Your task to perform on an android device: turn off smart reply in the gmail app Image 0: 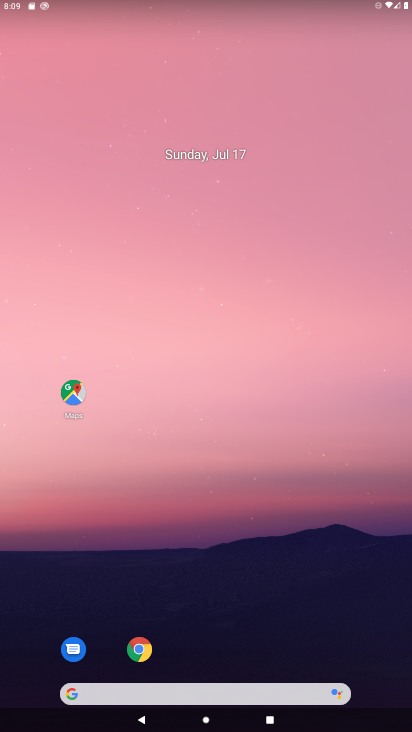
Step 0: drag from (231, 668) to (179, 11)
Your task to perform on an android device: turn off smart reply in the gmail app Image 1: 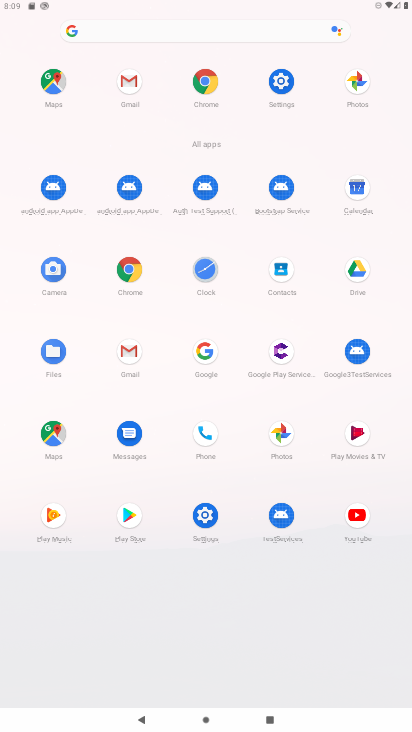
Step 1: click (201, 525)
Your task to perform on an android device: turn off smart reply in the gmail app Image 2: 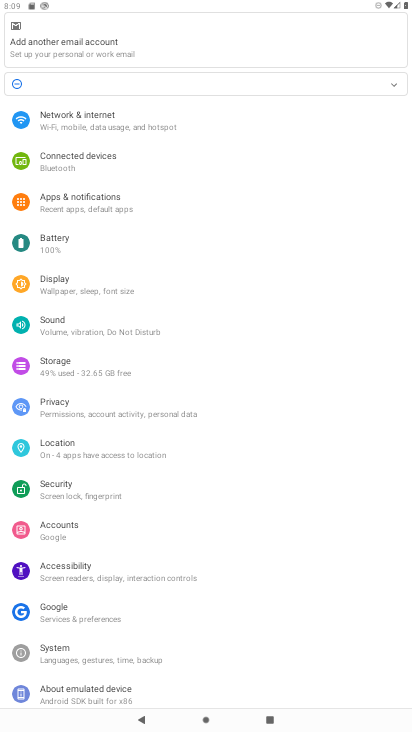
Step 2: press home button
Your task to perform on an android device: turn off smart reply in the gmail app Image 3: 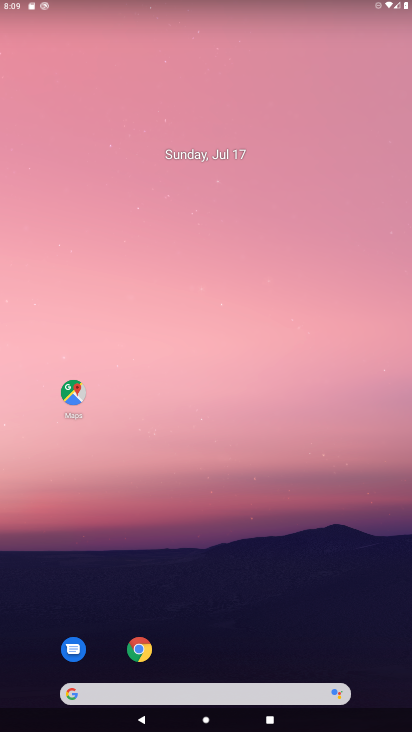
Step 3: drag from (225, 672) to (177, 45)
Your task to perform on an android device: turn off smart reply in the gmail app Image 4: 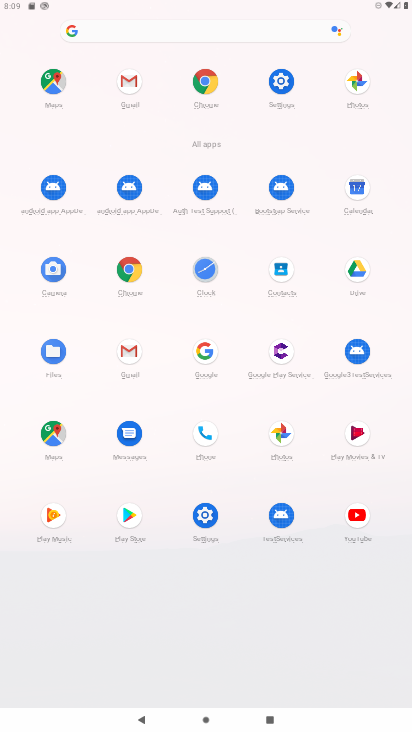
Step 4: click (119, 327)
Your task to perform on an android device: turn off smart reply in the gmail app Image 5: 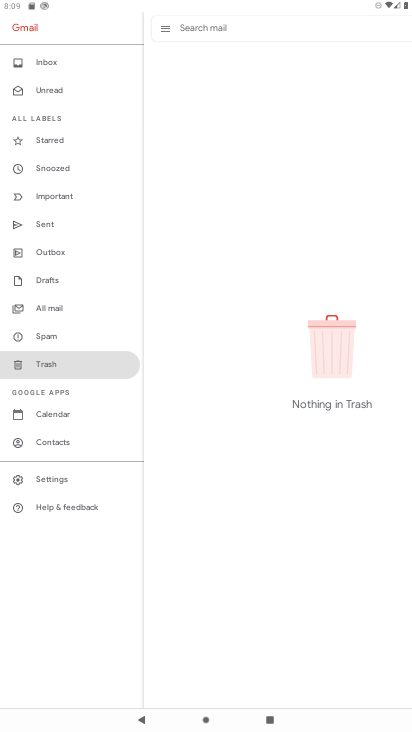
Step 5: click (48, 471)
Your task to perform on an android device: turn off smart reply in the gmail app Image 6: 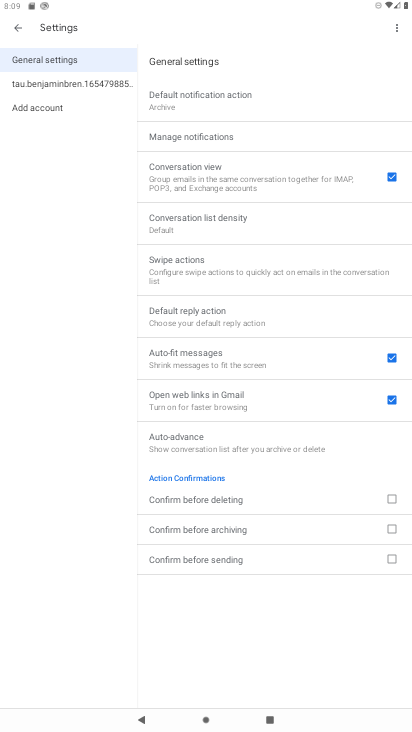
Step 6: click (80, 89)
Your task to perform on an android device: turn off smart reply in the gmail app Image 7: 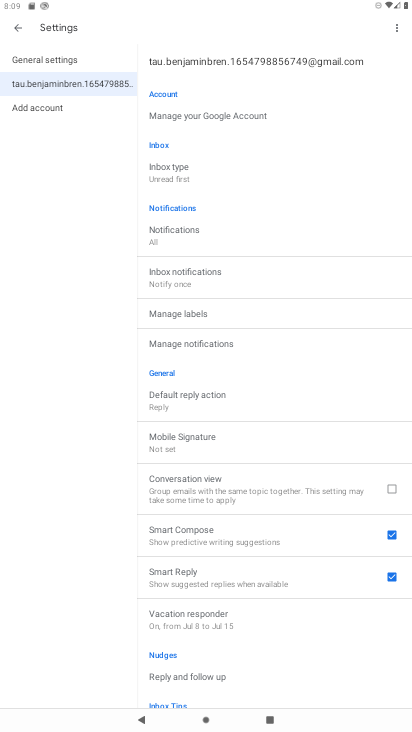
Step 7: click (397, 579)
Your task to perform on an android device: turn off smart reply in the gmail app Image 8: 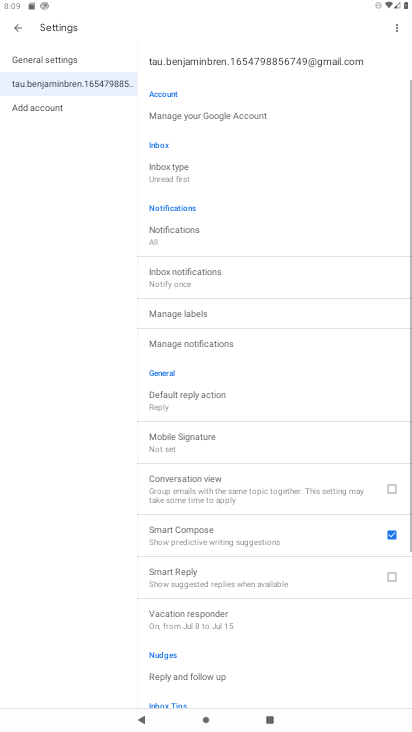
Step 8: task complete